Your task to perform on an android device: open a bookmark in the chrome app Image 0: 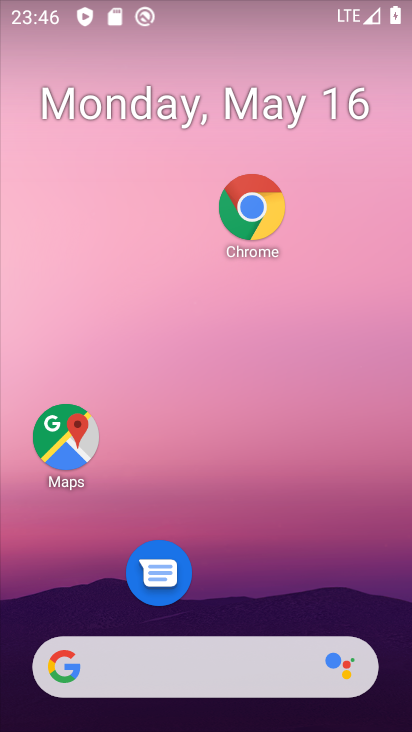
Step 0: drag from (303, 597) to (248, 18)
Your task to perform on an android device: open a bookmark in the chrome app Image 1: 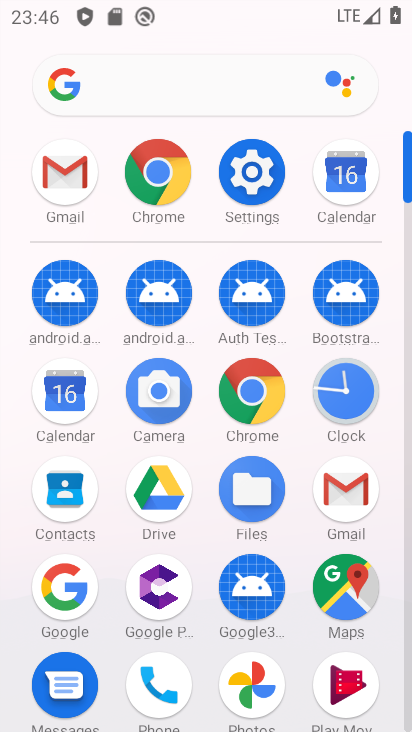
Step 1: click (252, 404)
Your task to perform on an android device: open a bookmark in the chrome app Image 2: 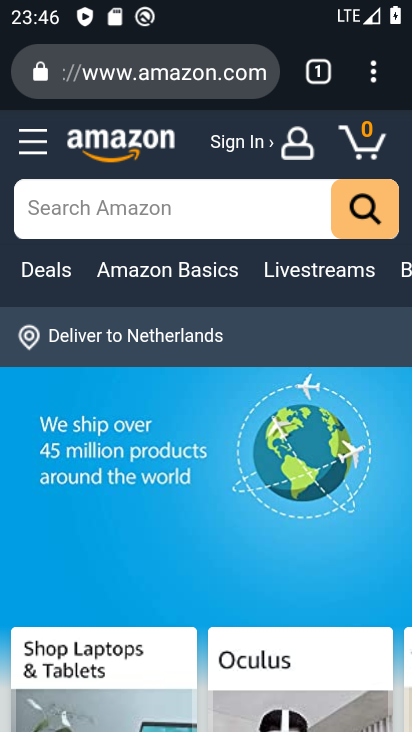
Step 2: click (367, 79)
Your task to perform on an android device: open a bookmark in the chrome app Image 3: 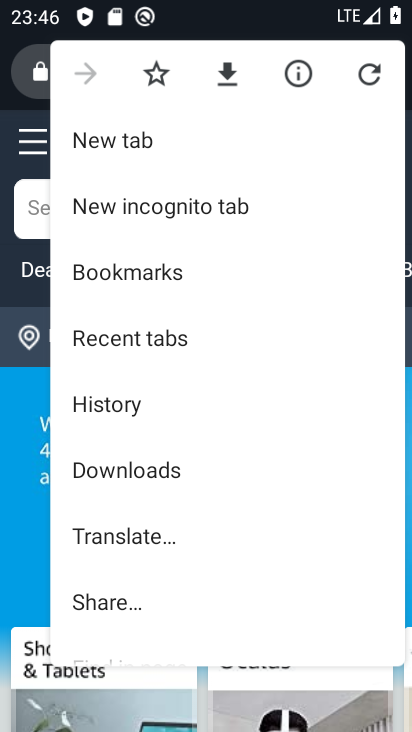
Step 3: click (187, 269)
Your task to perform on an android device: open a bookmark in the chrome app Image 4: 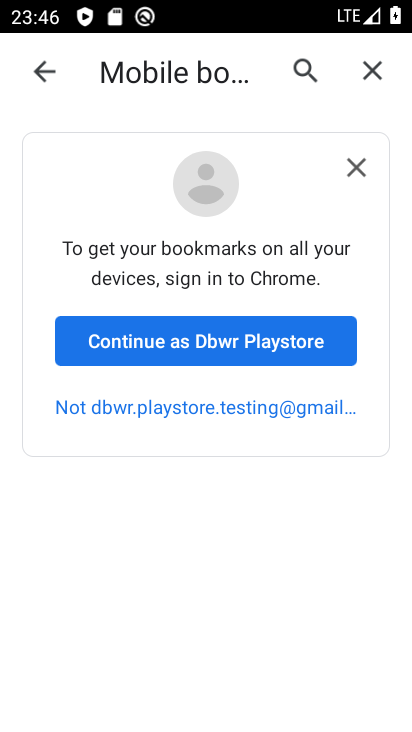
Step 4: task complete